Your task to perform on an android device: Turn off the flashlight Image 0: 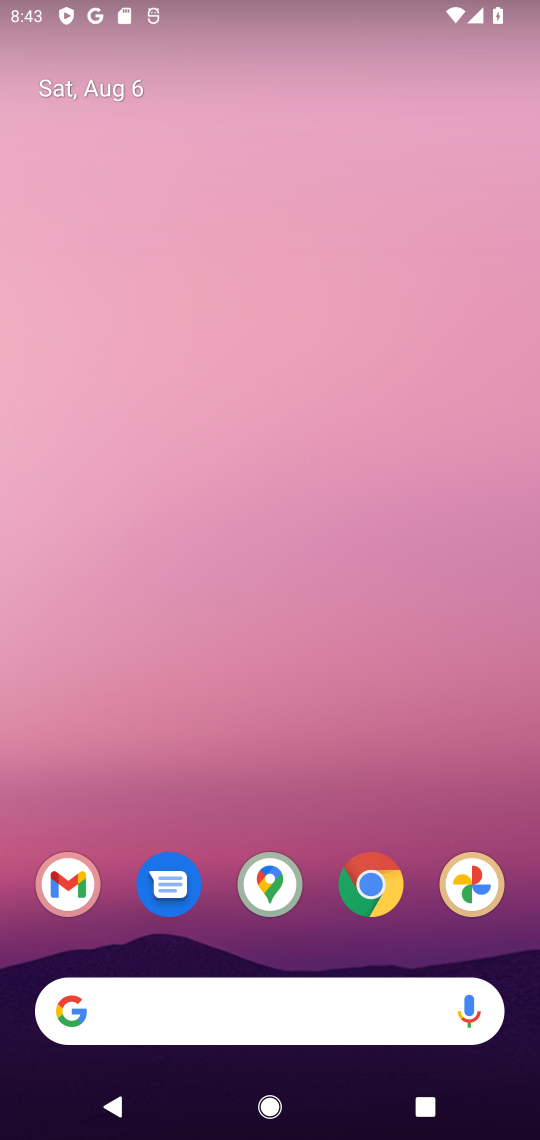
Step 0: drag from (290, 15) to (301, 1077)
Your task to perform on an android device: Turn off the flashlight Image 1: 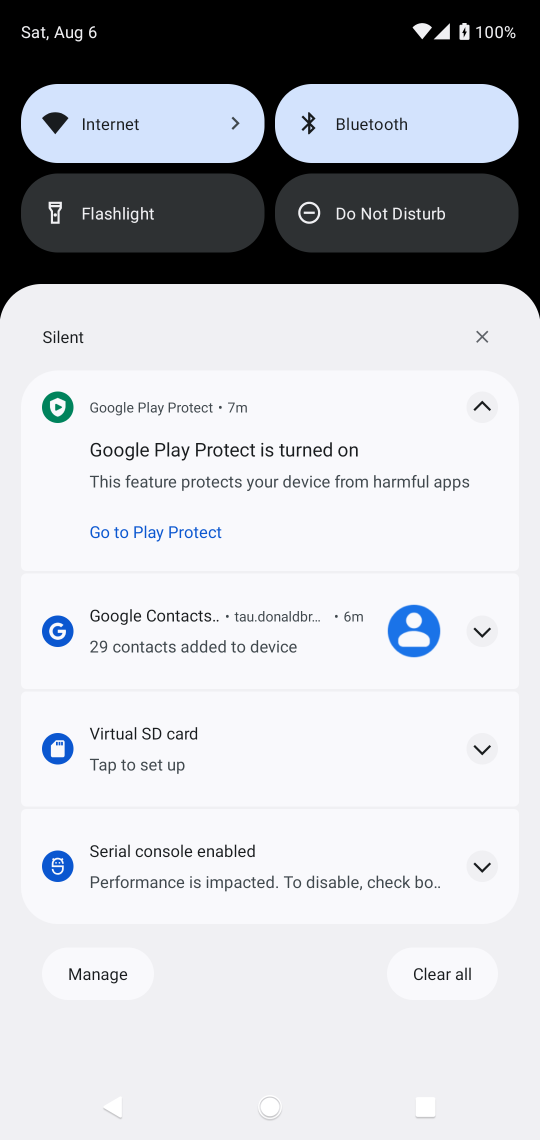
Step 1: task complete